Your task to perform on an android device: set the timer Image 0: 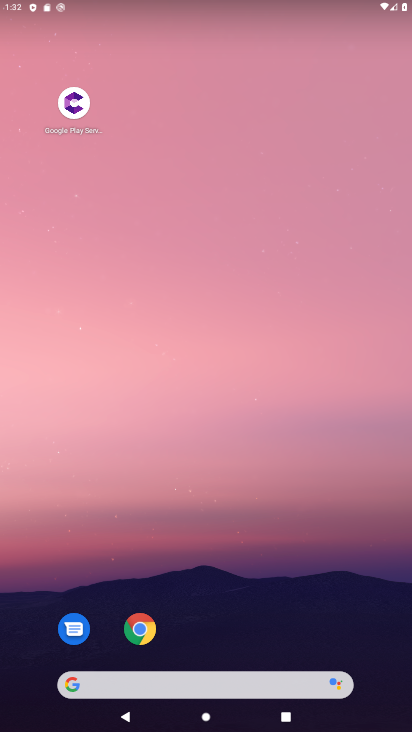
Step 0: drag from (327, 601) to (409, 111)
Your task to perform on an android device: set the timer Image 1: 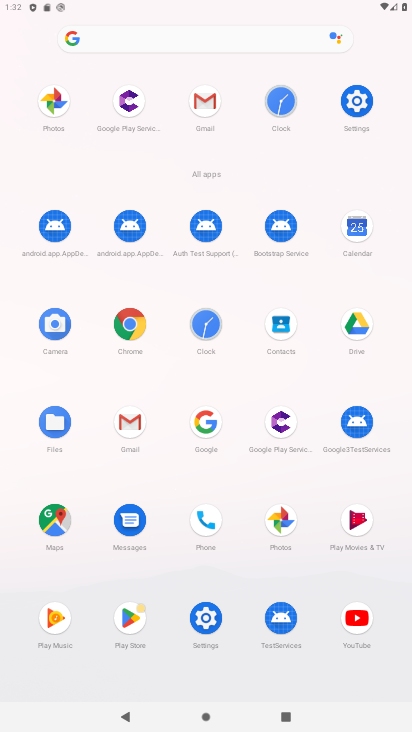
Step 1: click (200, 323)
Your task to perform on an android device: set the timer Image 2: 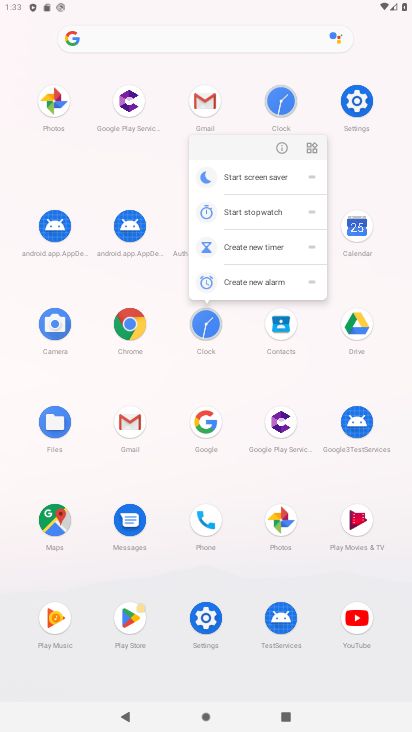
Step 2: click (206, 321)
Your task to perform on an android device: set the timer Image 3: 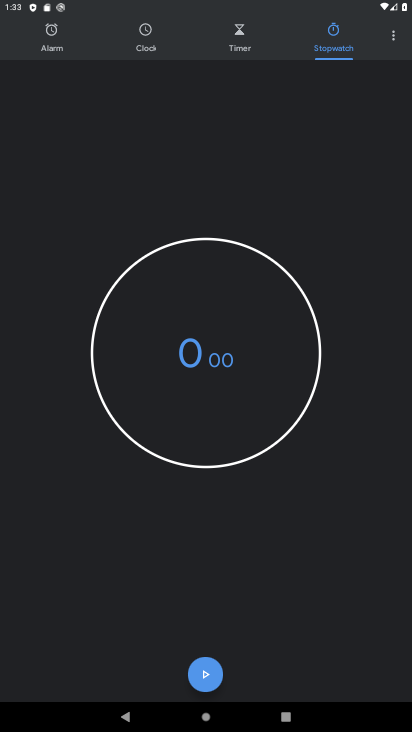
Step 3: click (231, 35)
Your task to perform on an android device: set the timer Image 4: 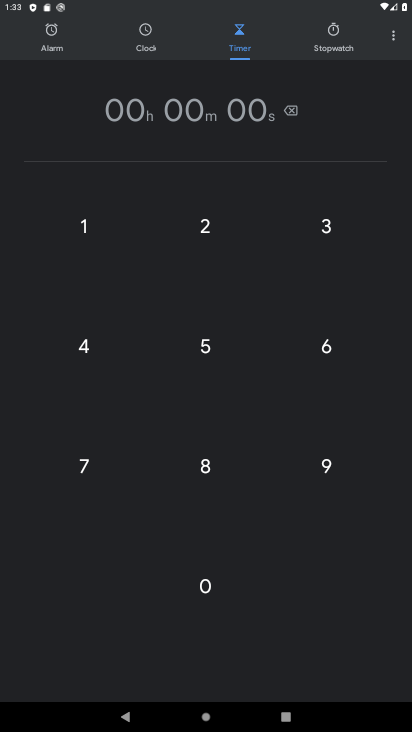
Step 4: click (204, 221)
Your task to perform on an android device: set the timer Image 5: 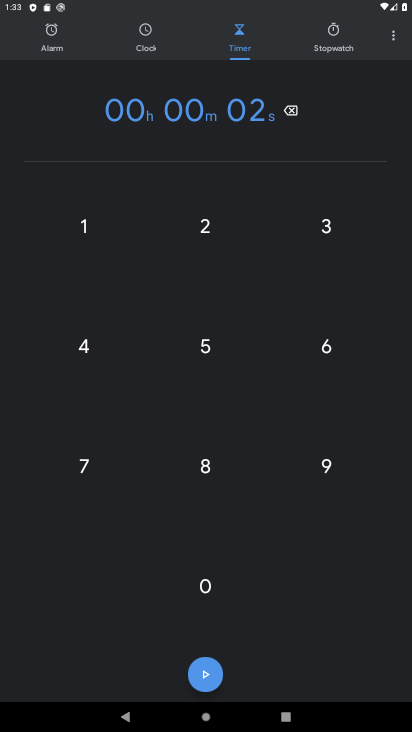
Step 5: click (206, 359)
Your task to perform on an android device: set the timer Image 6: 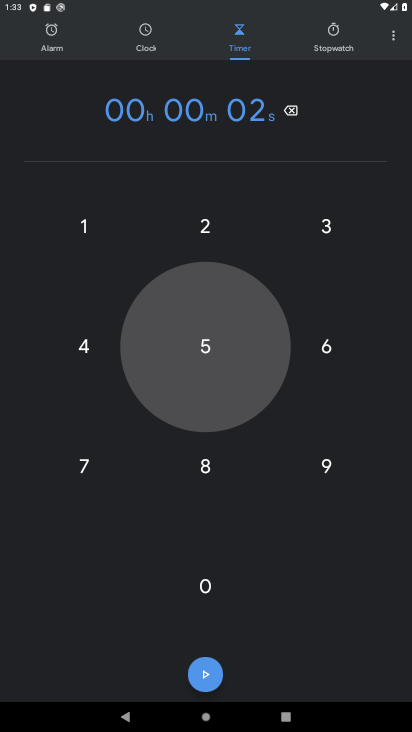
Step 6: click (215, 249)
Your task to perform on an android device: set the timer Image 7: 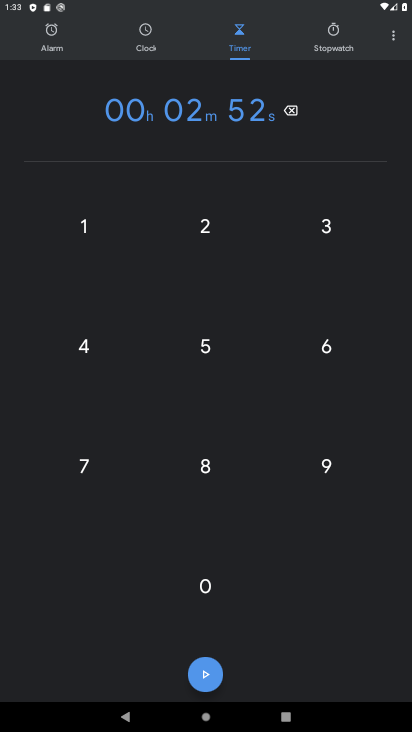
Step 7: click (203, 322)
Your task to perform on an android device: set the timer Image 8: 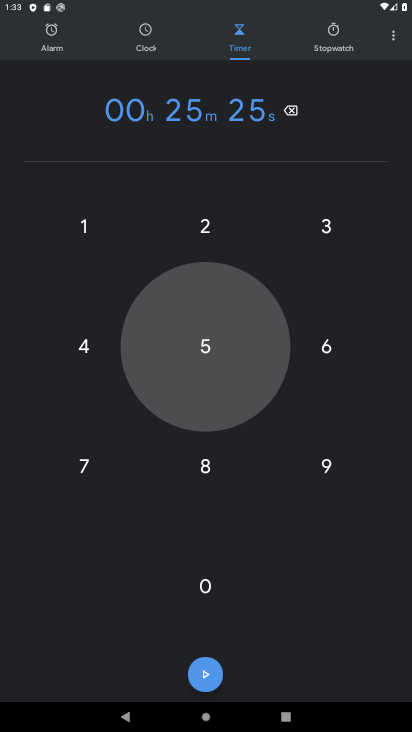
Step 8: click (205, 268)
Your task to perform on an android device: set the timer Image 9: 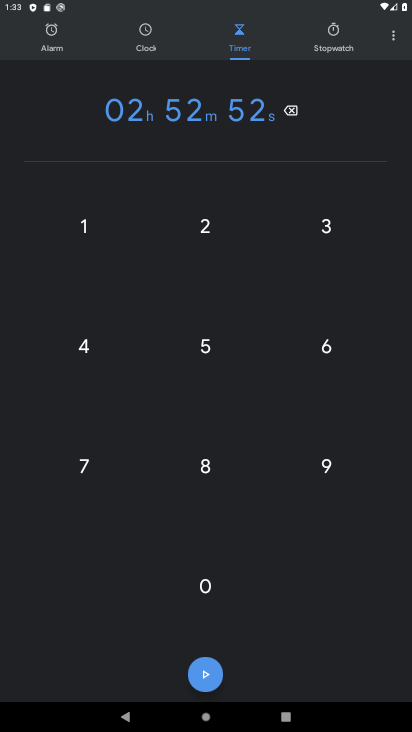
Step 9: click (191, 314)
Your task to perform on an android device: set the timer Image 10: 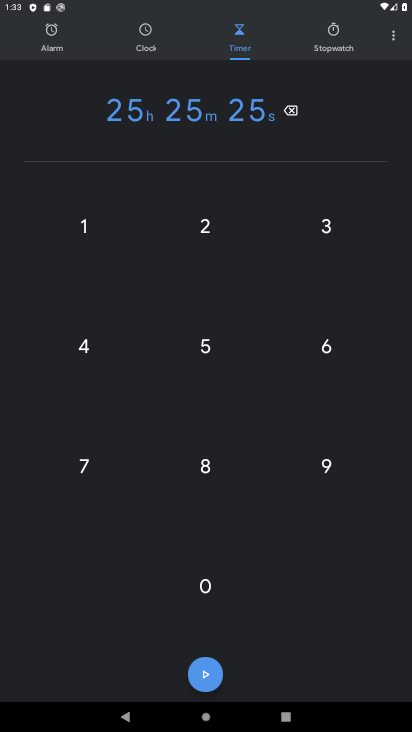
Step 10: click (204, 684)
Your task to perform on an android device: set the timer Image 11: 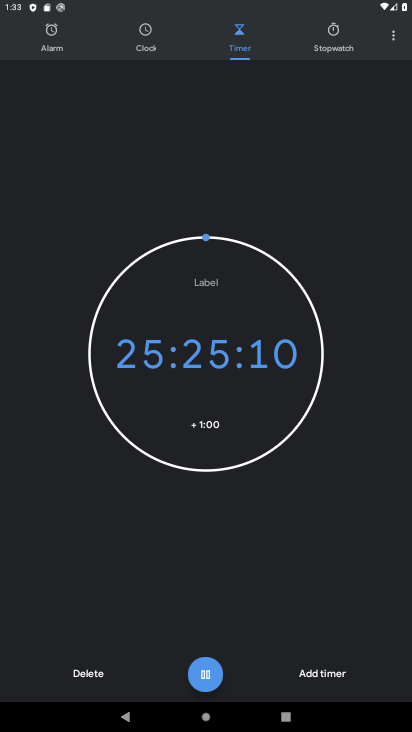
Step 11: task complete